Your task to perform on an android device: Set the phone to "Do not disturb". Image 0: 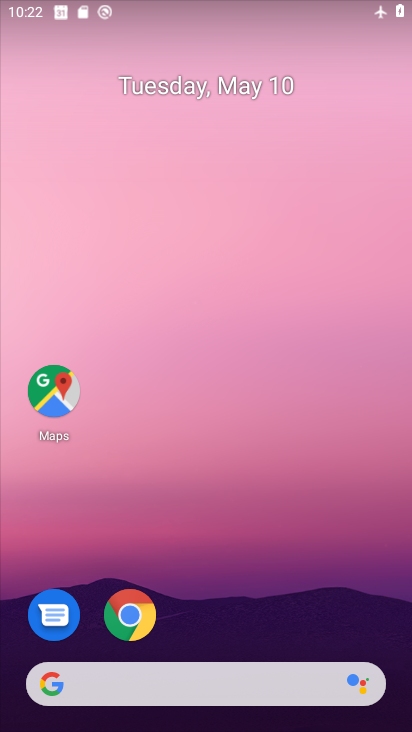
Step 0: drag from (243, 632) to (344, 325)
Your task to perform on an android device: Set the phone to "Do not disturb". Image 1: 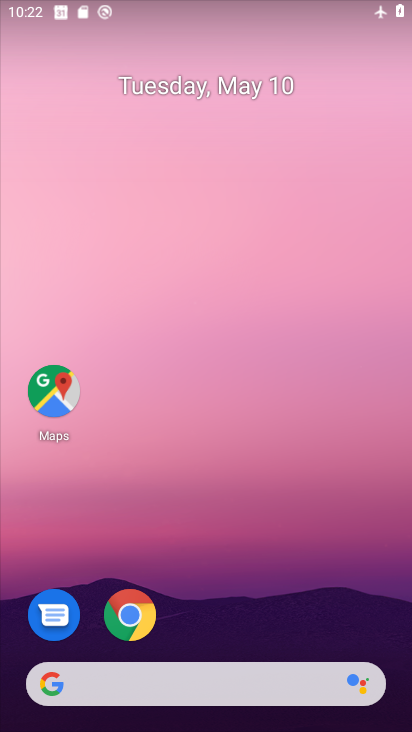
Step 1: drag from (188, 641) to (250, 114)
Your task to perform on an android device: Set the phone to "Do not disturb". Image 2: 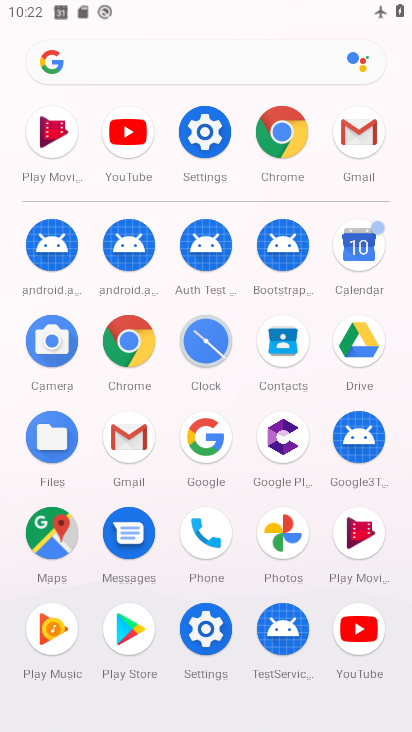
Step 2: click (208, 133)
Your task to perform on an android device: Set the phone to "Do not disturb". Image 3: 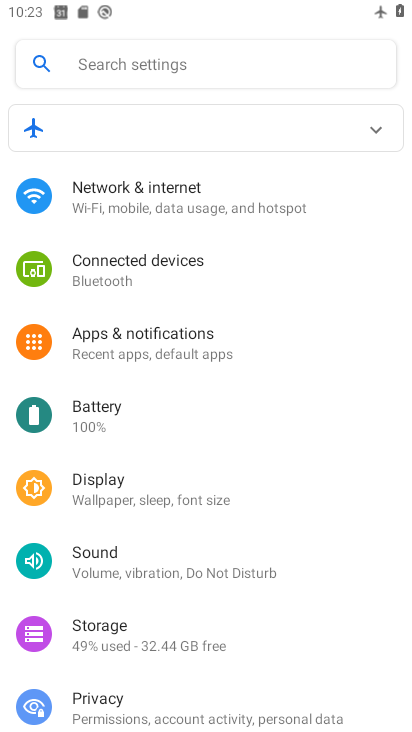
Step 3: click (179, 352)
Your task to perform on an android device: Set the phone to "Do not disturb". Image 4: 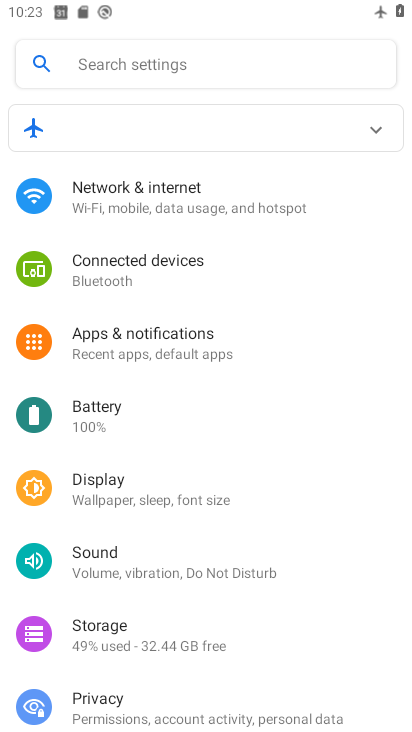
Step 4: click (179, 352)
Your task to perform on an android device: Set the phone to "Do not disturb". Image 5: 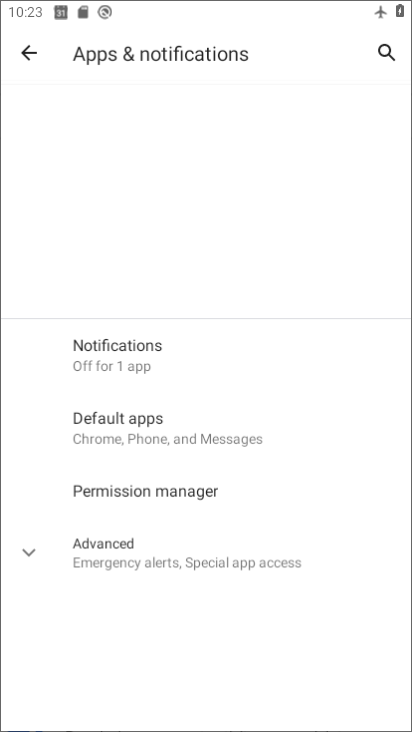
Step 5: drag from (170, 599) to (258, 181)
Your task to perform on an android device: Set the phone to "Do not disturb". Image 6: 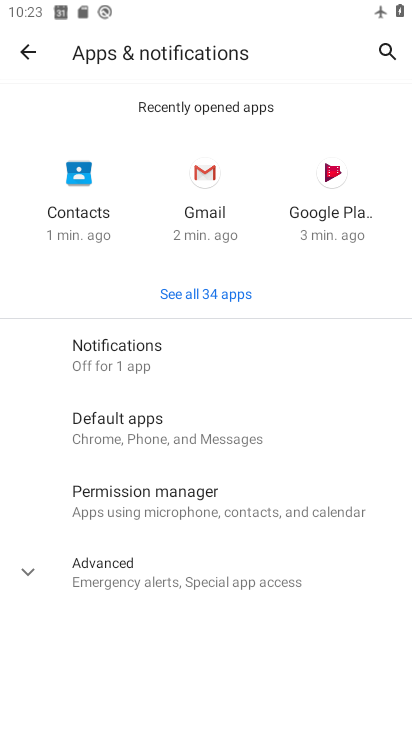
Step 6: click (163, 558)
Your task to perform on an android device: Set the phone to "Do not disturb". Image 7: 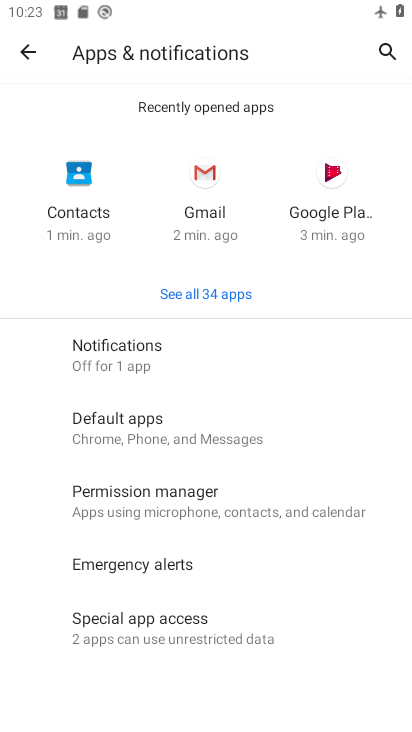
Step 7: drag from (211, 357) to (290, 154)
Your task to perform on an android device: Set the phone to "Do not disturb". Image 8: 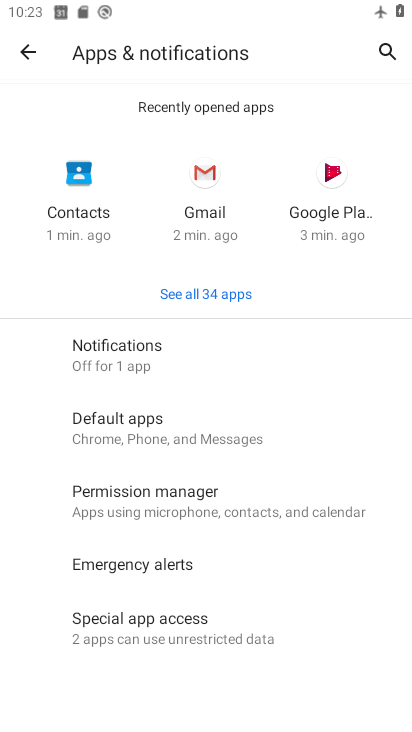
Step 8: click (151, 645)
Your task to perform on an android device: Set the phone to "Do not disturb". Image 9: 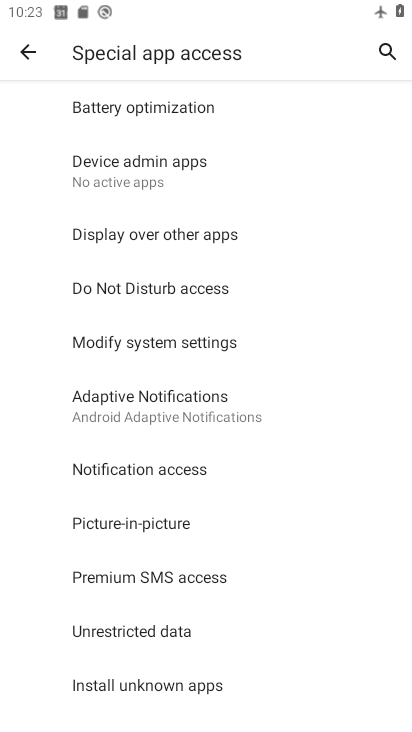
Step 9: click (29, 55)
Your task to perform on an android device: Set the phone to "Do not disturb". Image 10: 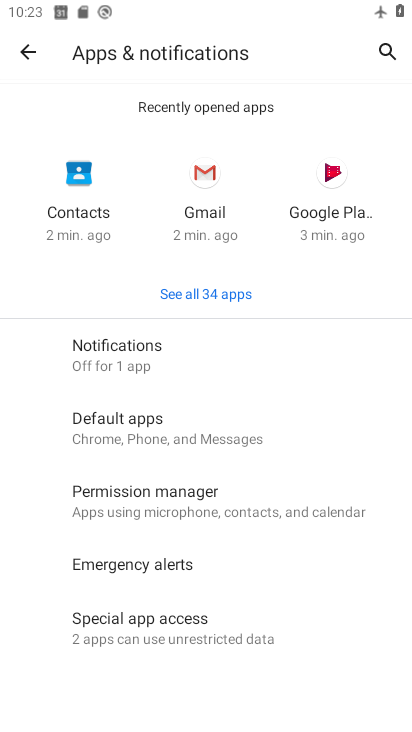
Step 10: click (150, 358)
Your task to perform on an android device: Set the phone to "Do not disturb". Image 11: 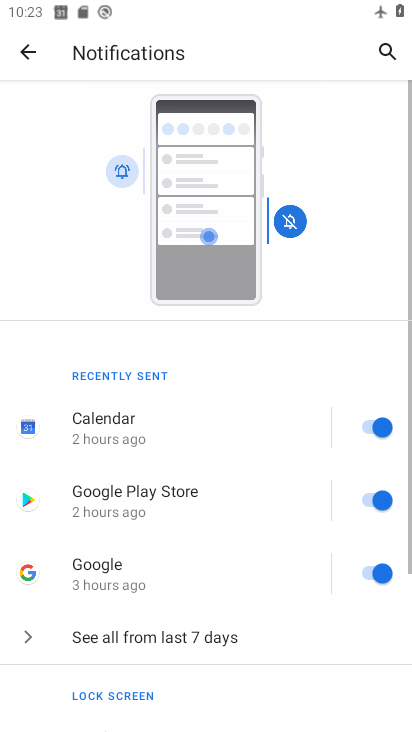
Step 11: drag from (211, 544) to (323, 139)
Your task to perform on an android device: Set the phone to "Do not disturb". Image 12: 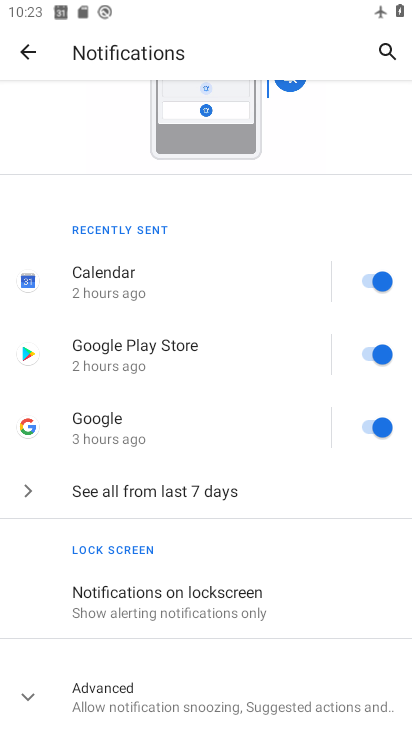
Step 12: click (119, 705)
Your task to perform on an android device: Set the phone to "Do not disturb". Image 13: 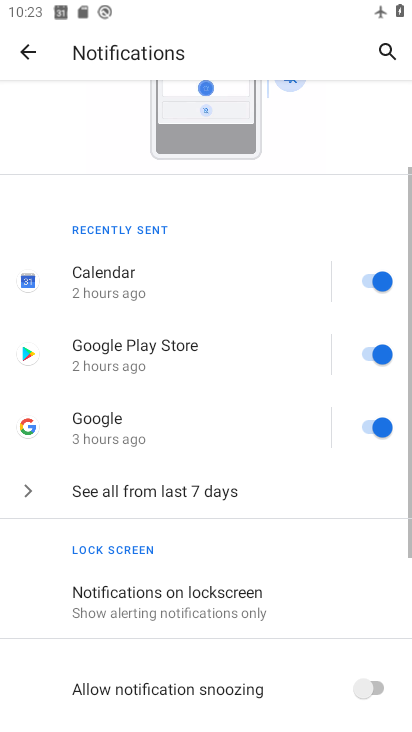
Step 13: drag from (126, 698) to (271, 212)
Your task to perform on an android device: Set the phone to "Do not disturb". Image 14: 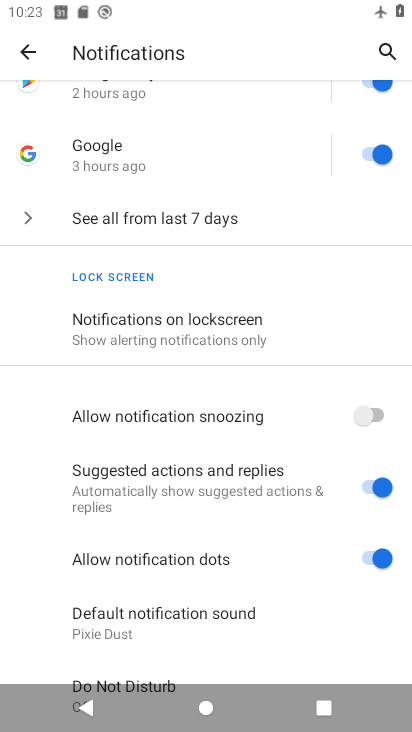
Step 14: drag from (213, 608) to (280, 198)
Your task to perform on an android device: Set the phone to "Do not disturb". Image 15: 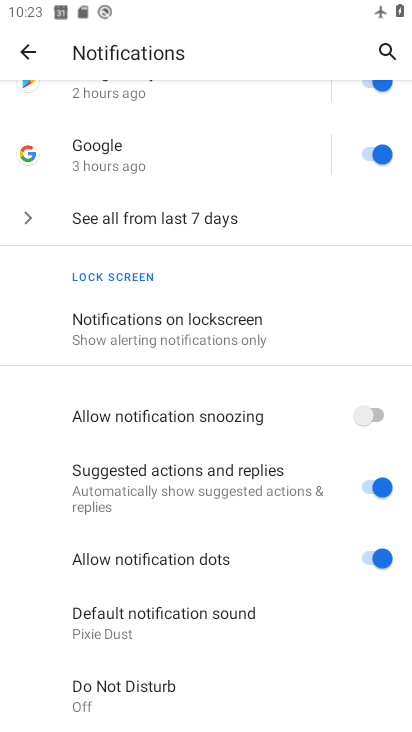
Step 15: click (183, 696)
Your task to perform on an android device: Set the phone to "Do not disturb". Image 16: 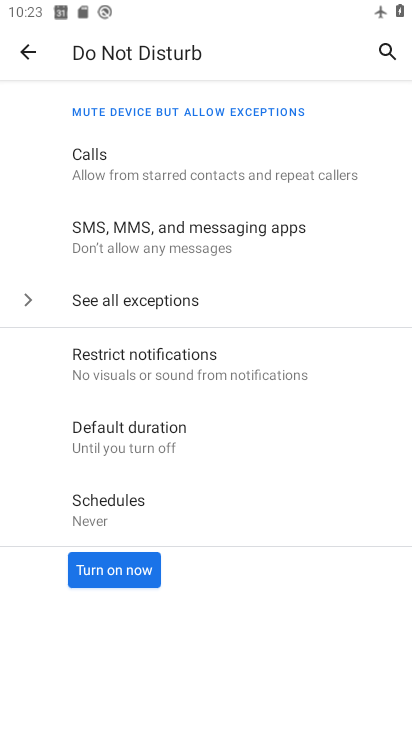
Step 16: drag from (208, 622) to (326, 24)
Your task to perform on an android device: Set the phone to "Do not disturb". Image 17: 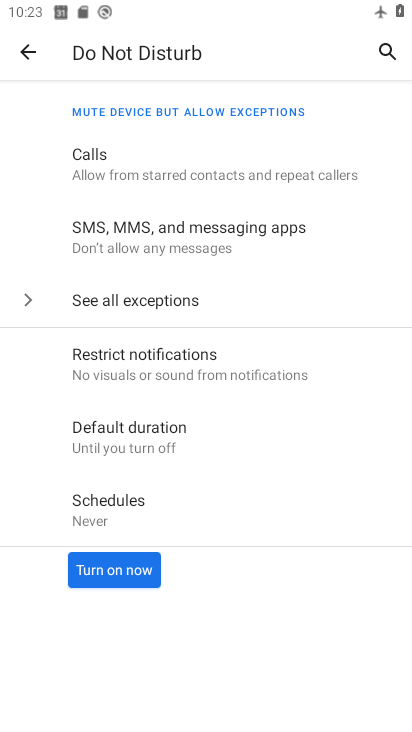
Step 17: drag from (202, 633) to (284, 255)
Your task to perform on an android device: Set the phone to "Do not disturb". Image 18: 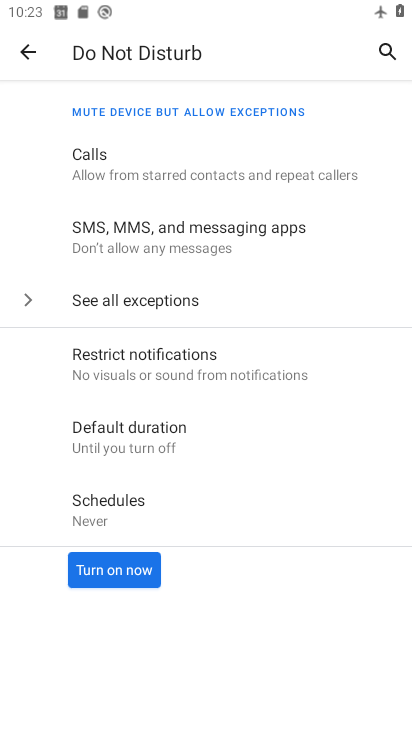
Step 18: drag from (215, 659) to (284, 312)
Your task to perform on an android device: Set the phone to "Do not disturb". Image 19: 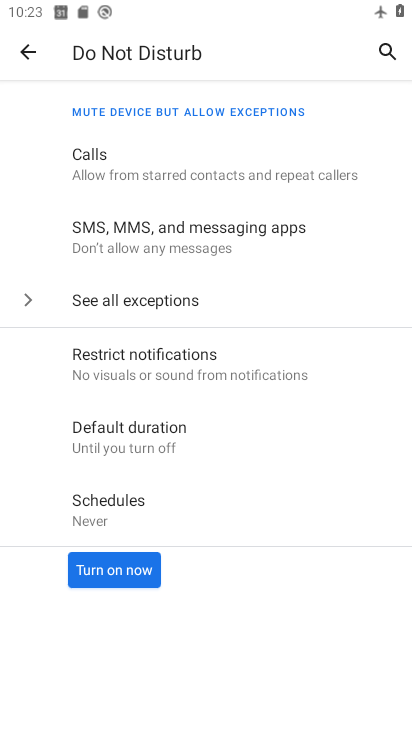
Step 19: drag from (207, 645) to (252, 310)
Your task to perform on an android device: Set the phone to "Do not disturb". Image 20: 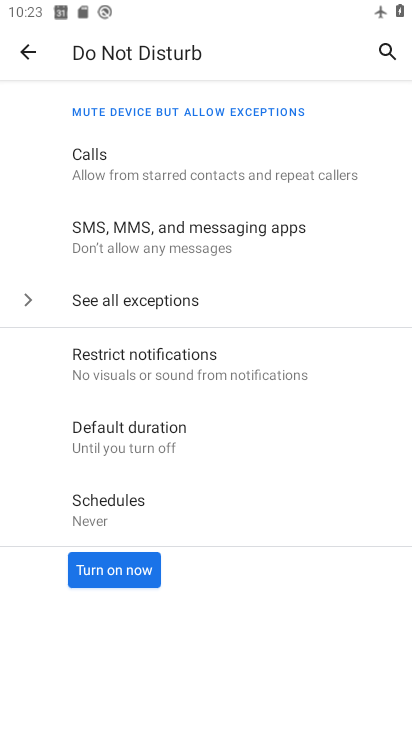
Step 20: drag from (221, 574) to (295, 322)
Your task to perform on an android device: Set the phone to "Do not disturb". Image 21: 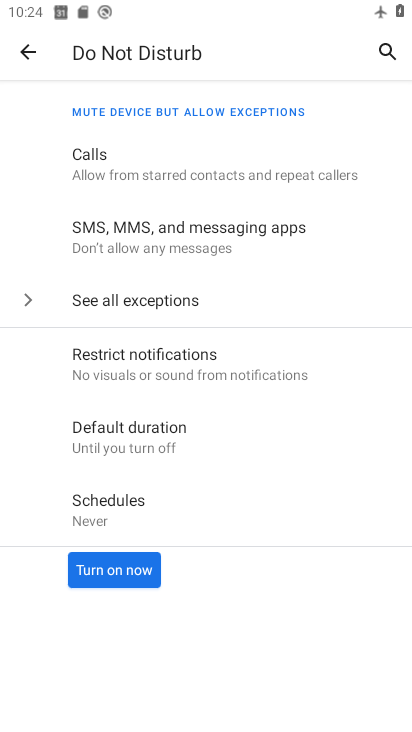
Step 21: click (126, 577)
Your task to perform on an android device: Set the phone to "Do not disturb". Image 22: 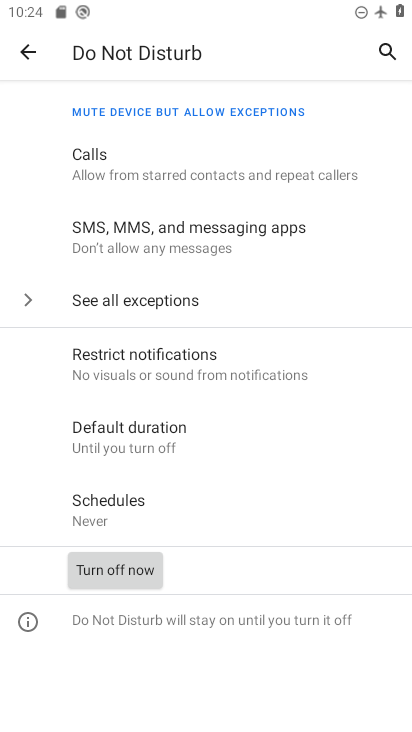
Step 22: task complete